Your task to perform on an android device: Search for pizza restaurants on Maps Image 0: 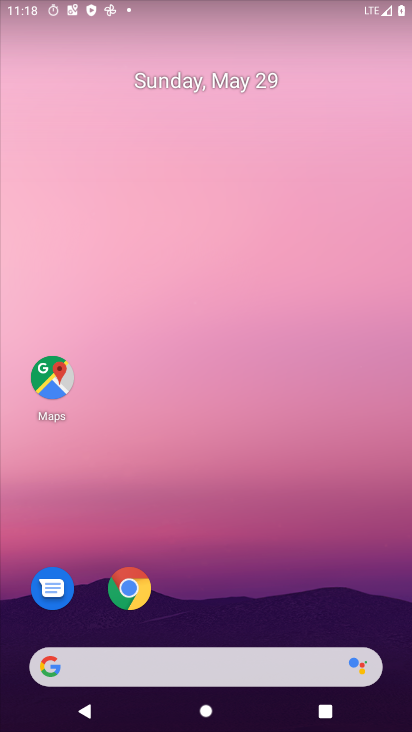
Step 0: drag from (221, 626) to (283, 165)
Your task to perform on an android device: Search for pizza restaurants on Maps Image 1: 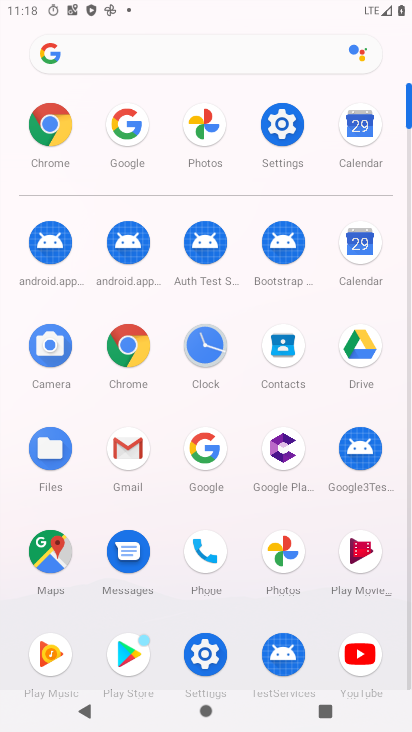
Step 1: click (39, 559)
Your task to perform on an android device: Search for pizza restaurants on Maps Image 2: 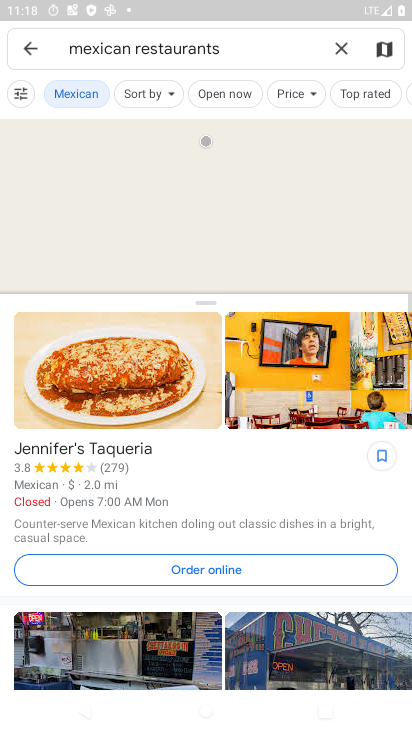
Step 2: click (333, 51)
Your task to perform on an android device: Search for pizza restaurants on Maps Image 3: 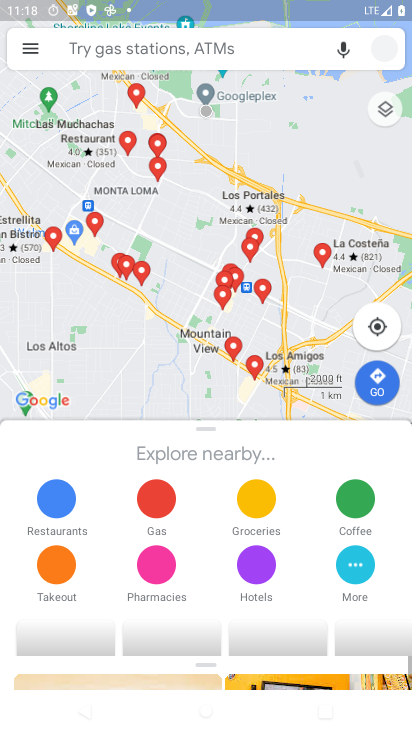
Step 3: click (143, 53)
Your task to perform on an android device: Search for pizza restaurants on Maps Image 4: 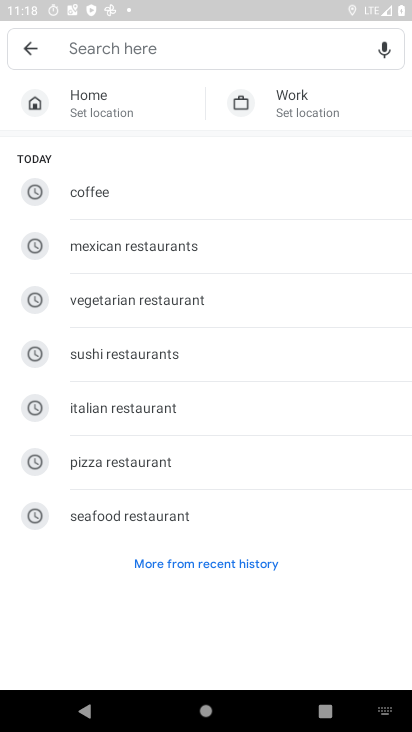
Step 4: click (147, 52)
Your task to perform on an android device: Search for pizza restaurants on Maps Image 5: 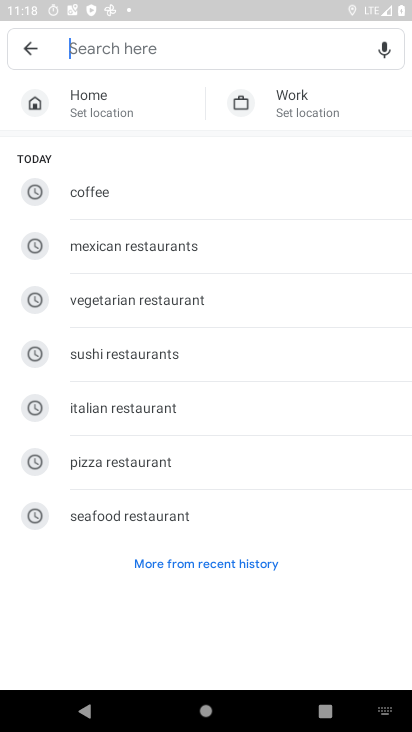
Step 5: click (175, 459)
Your task to perform on an android device: Search for pizza restaurants on Maps Image 6: 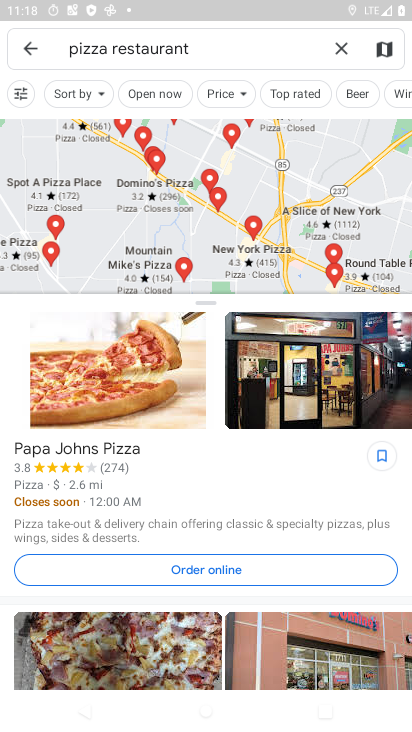
Step 6: task complete